Your task to perform on an android device: What's on my calendar tomorrow? Image 0: 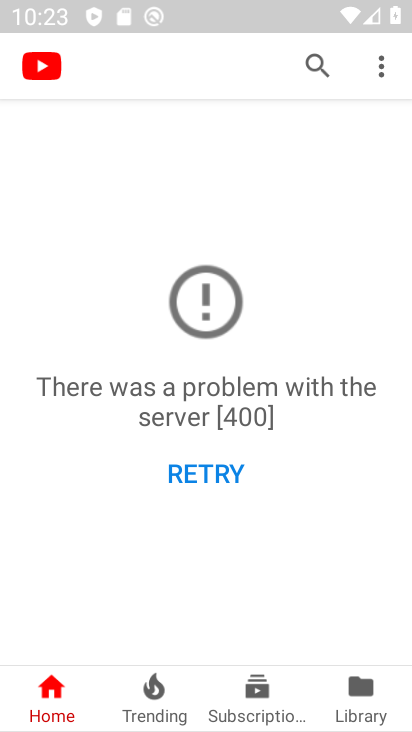
Step 0: press home button
Your task to perform on an android device: What's on my calendar tomorrow? Image 1: 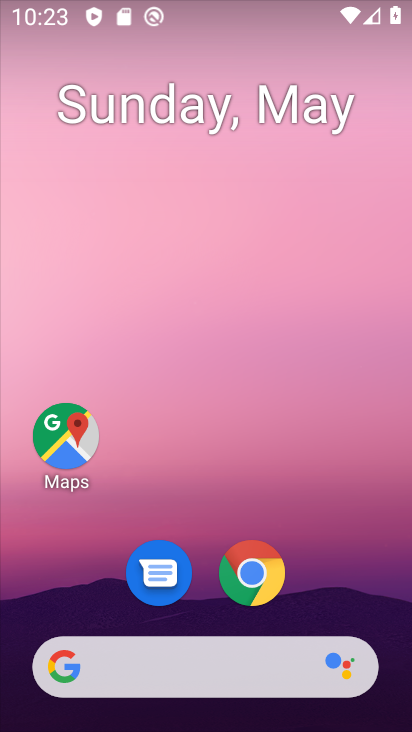
Step 1: drag from (204, 526) to (254, 216)
Your task to perform on an android device: What's on my calendar tomorrow? Image 2: 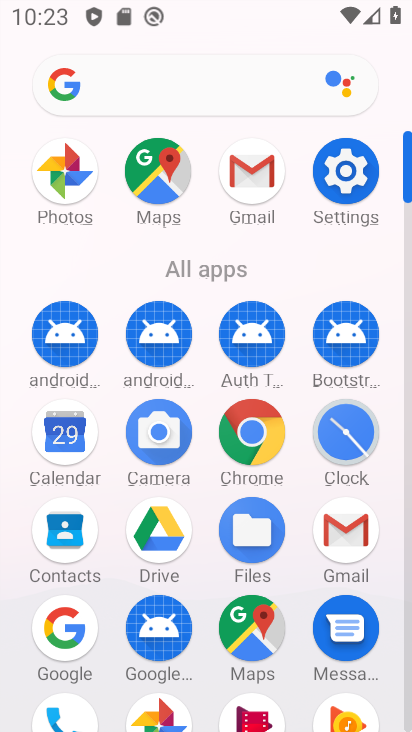
Step 2: click (54, 437)
Your task to perform on an android device: What's on my calendar tomorrow? Image 3: 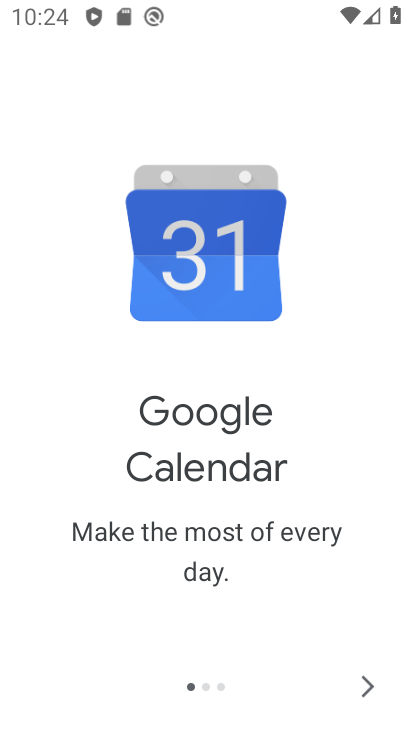
Step 3: click (369, 674)
Your task to perform on an android device: What's on my calendar tomorrow? Image 4: 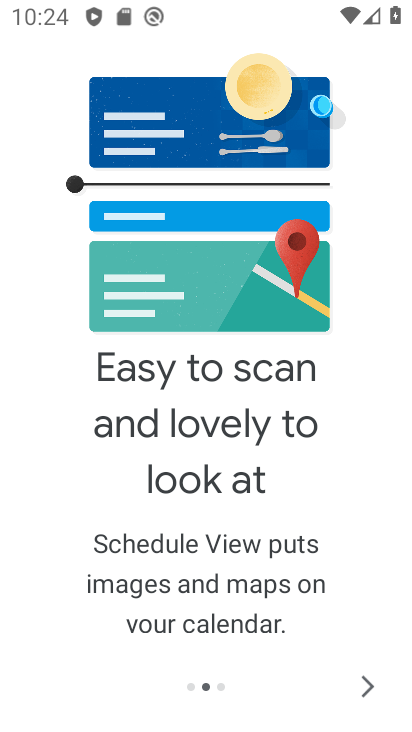
Step 4: click (364, 690)
Your task to perform on an android device: What's on my calendar tomorrow? Image 5: 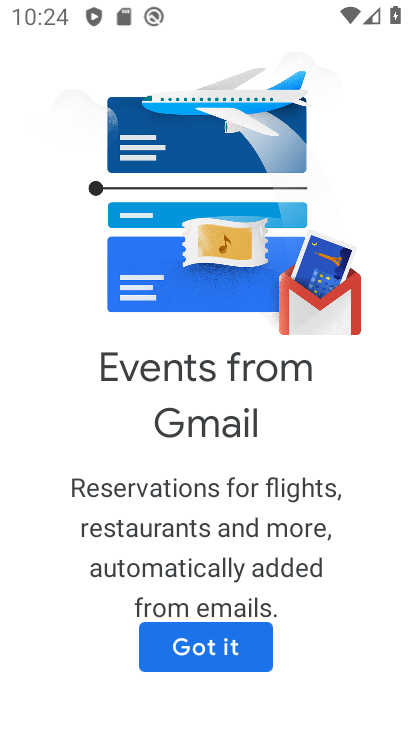
Step 5: click (229, 656)
Your task to perform on an android device: What's on my calendar tomorrow? Image 6: 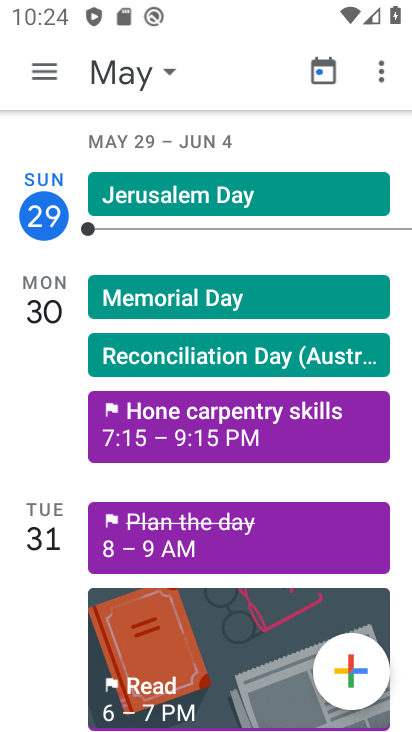
Step 6: click (167, 76)
Your task to perform on an android device: What's on my calendar tomorrow? Image 7: 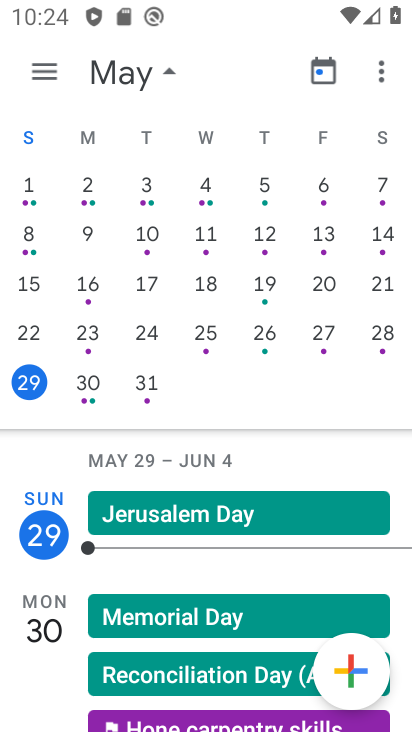
Step 7: click (91, 379)
Your task to perform on an android device: What's on my calendar tomorrow? Image 8: 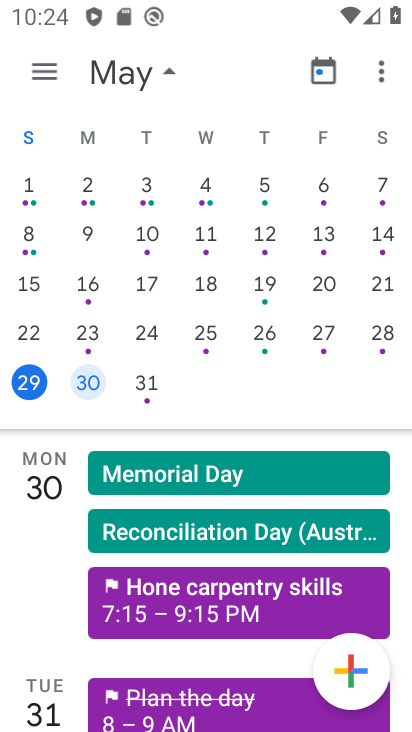
Step 8: click (147, 393)
Your task to perform on an android device: What's on my calendar tomorrow? Image 9: 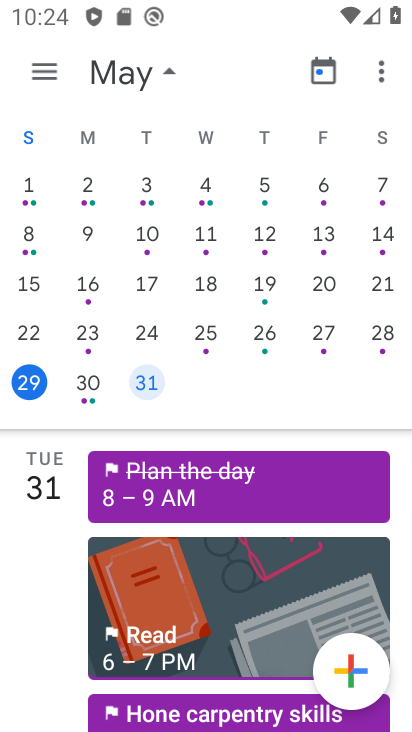
Step 9: task complete